Your task to perform on an android device: check android version Image 0: 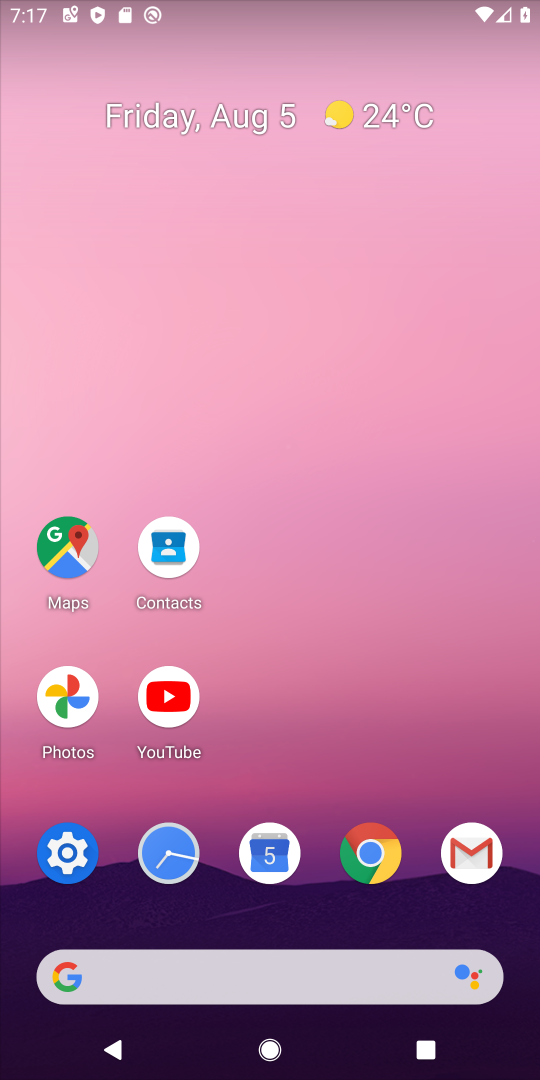
Step 0: click (68, 848)
Your task to perform on an android device: check android version Image 1: 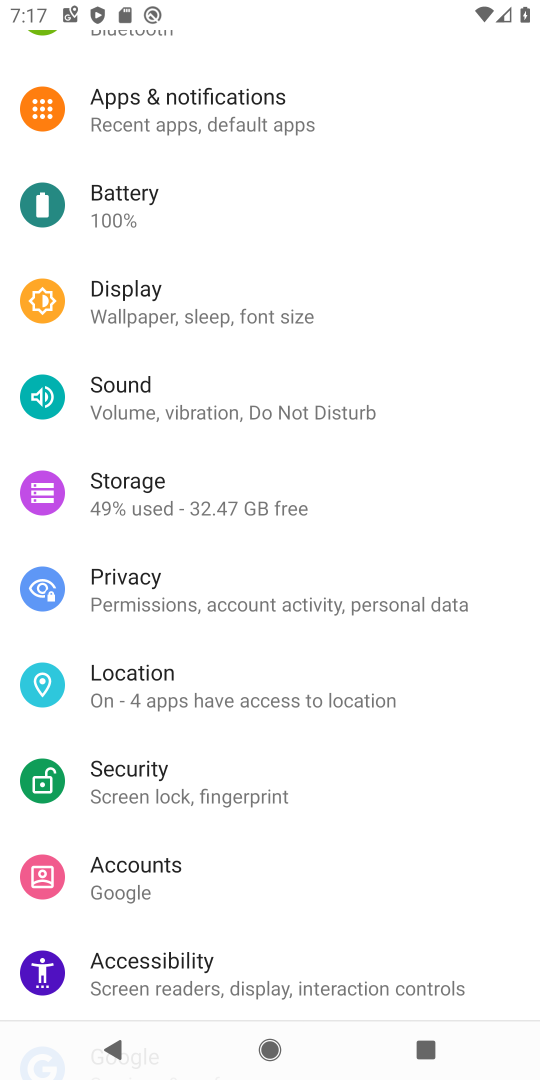
Step 1: drag from (337, 904) to (314, 305)
Your task to perform on an android device: check android version Image 2: 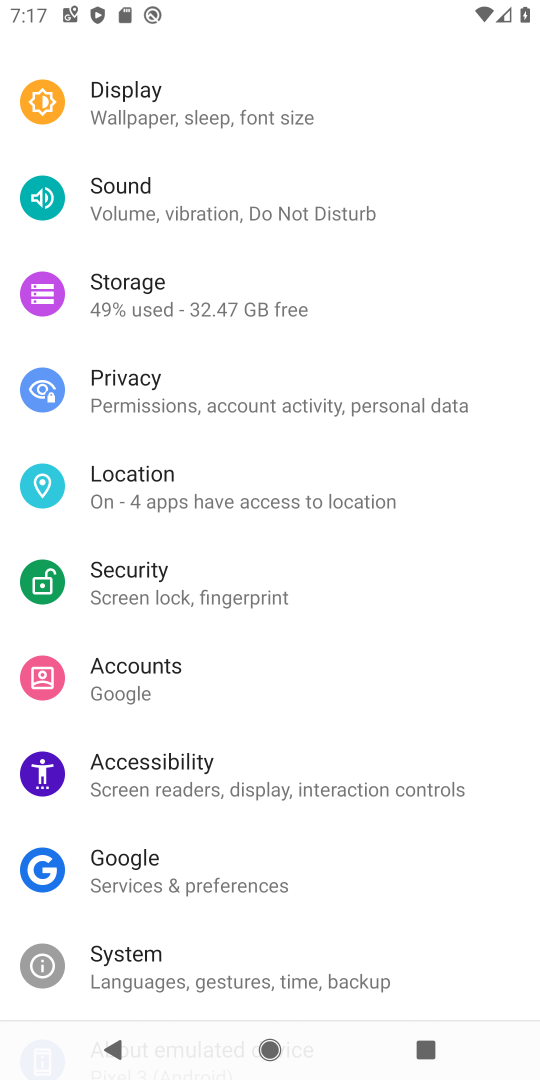
Step 2: drag from (282, 922) to (256, 354)
Your task to perform on an android device: check android version Image 3: 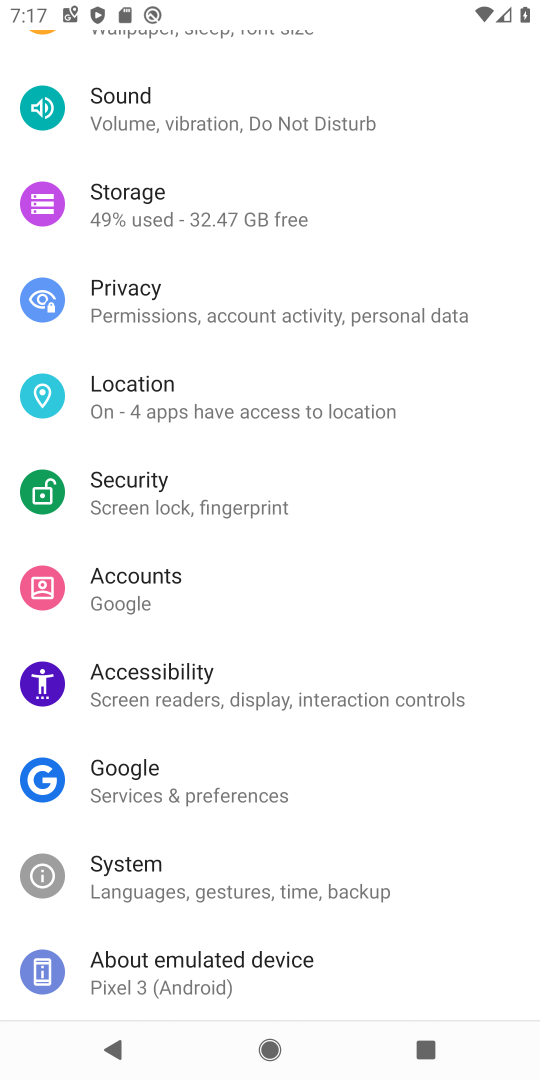
Step 3: click (191, 955)
Your task to perform on an android device: check android version Image 4: 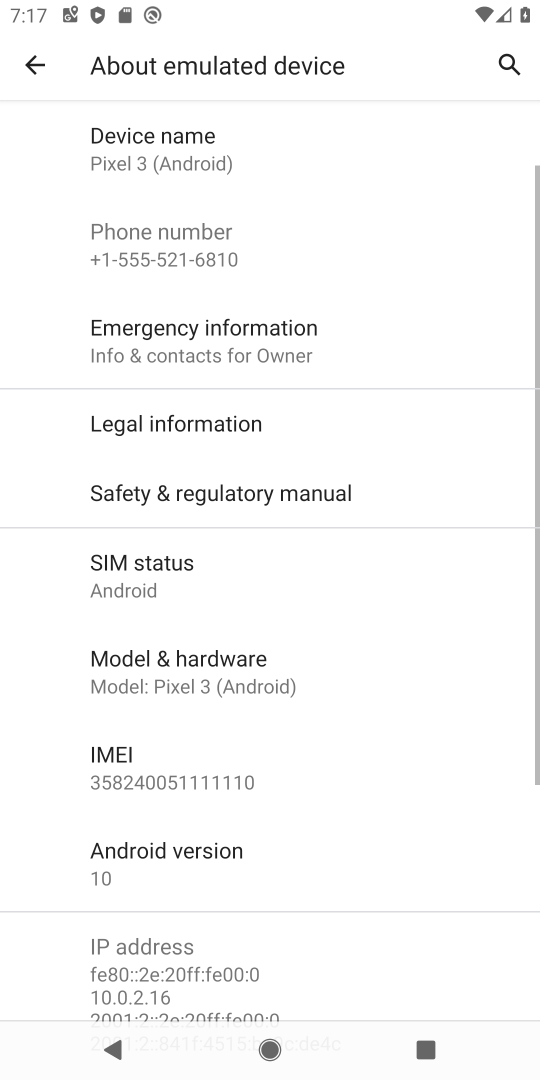
Step 4: task complete